Your task to perform on an android device: open chrome and create a bookmark for the current page Image 0: 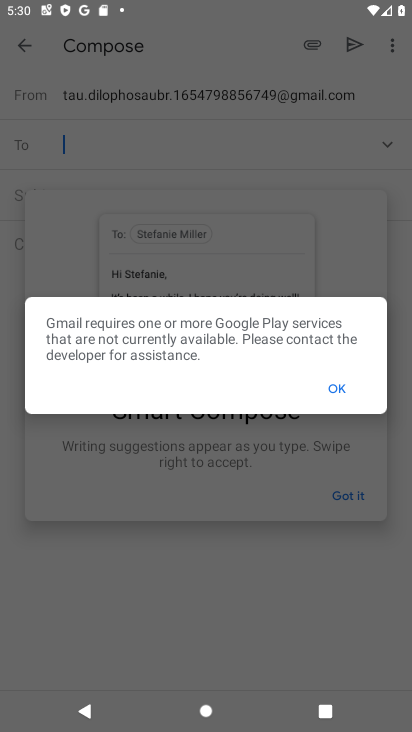
Step 0: press home button
Your task to perform on an android device: open chrome and create a bookmark for the current page Image 1: 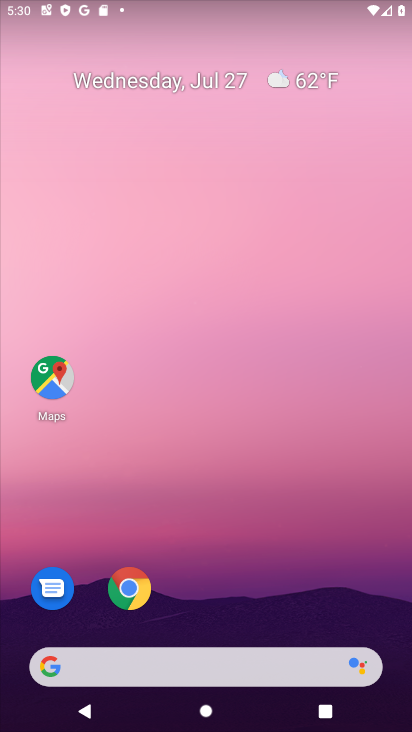
Step 1: click (131, 599)
Your task to perform on an android device: open chrome and create a bookmark for the current page Image 2: 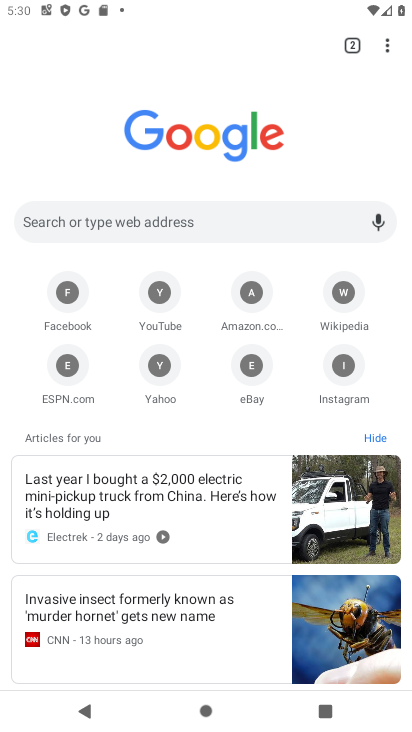
Step 2: click (383, 43)
Your task to perform on an android device: open chrome and create a bookmark for the current page Image 3: 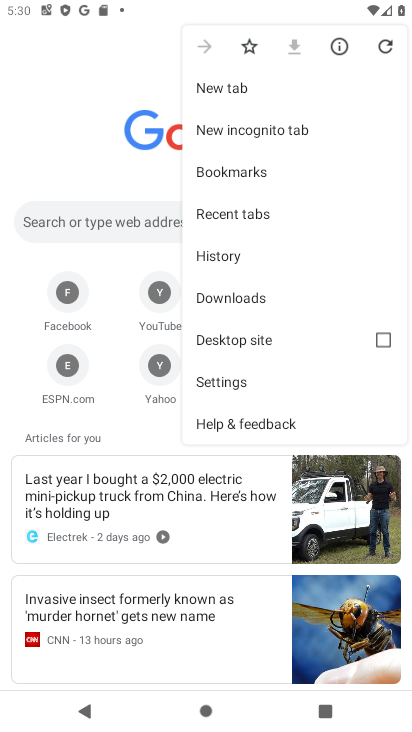
Step 3: click (248, 43)
Your task to perform on an android device: open chrome and create a bookmark for the current page Image 4: 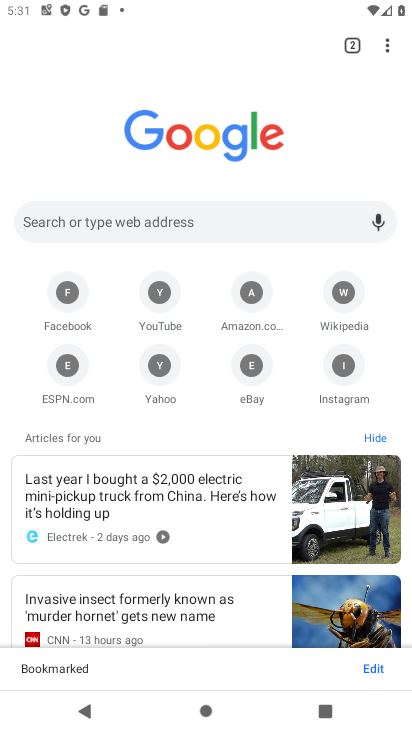
Step 4: task complete